Your task to perform on an android device: Go to wifi settings Image 0: 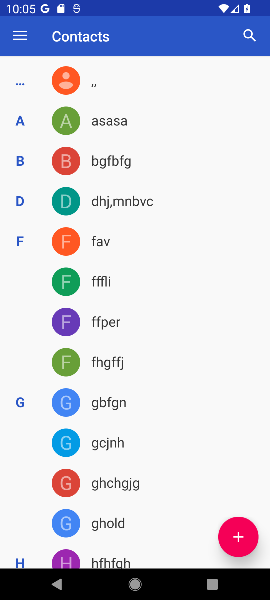
Step 0: press back button
Your task to perform on an android device: Go to wifi settings Image 1: 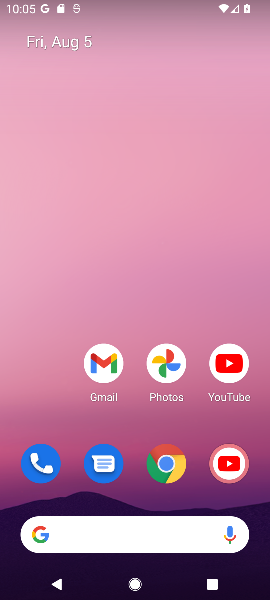
Step 1: drag from (150, 553) to (105, 199)
Your task to perform on an android device: Go to wifi settings Image 2: 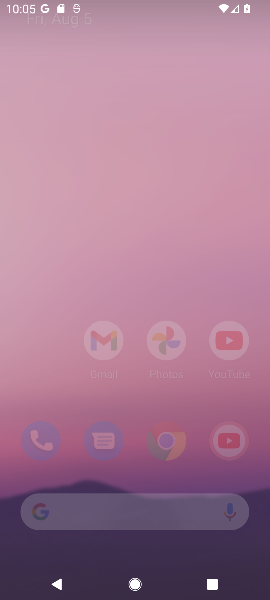
Step 2: drag from (159, 434) to (75, 123)
Your task to perform on an android device: Go to wifi settings Image 3: 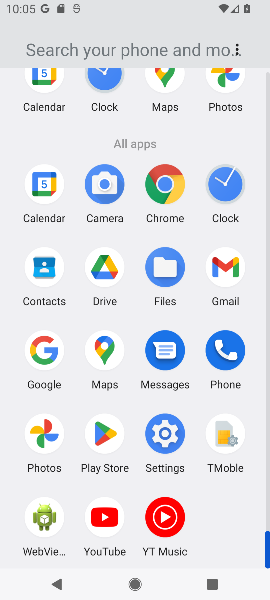
Step 3: drag from (119, 420) to (94, 240)
Your task to perform on an android device: Go to wifi settings Image 4: 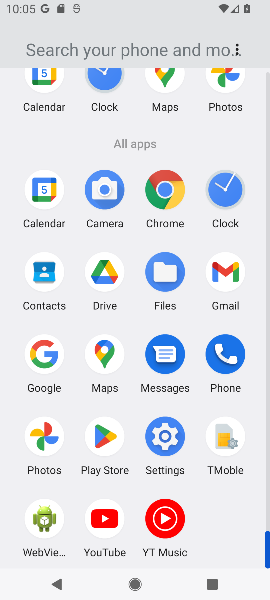
Step 4: click (165, 433)
Your task to perform on an android device: Go to wifi settings Image 5: 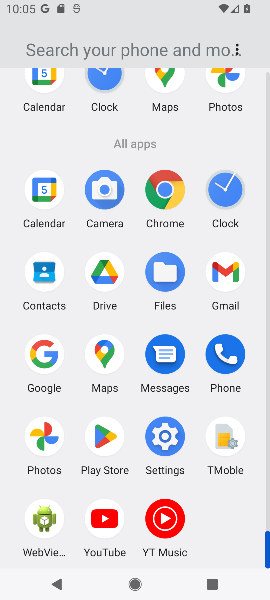
Step 5: click (165, 433)
Your task to perform on an android device: Go to wifi settings Image 6: 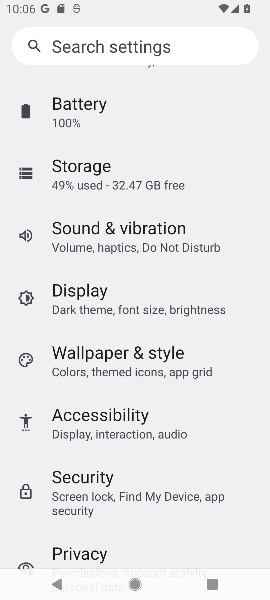
Step 6: press back button
Your task to perform on an android device: Go to wifi settings Image 7: 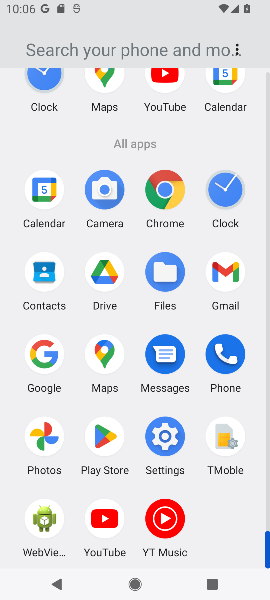
Step 7: click (165, 436)
Your task to perform on an android device: Go to wifi settings Image 8: 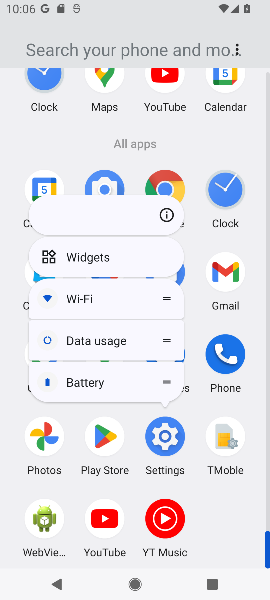
Step 8: click (165, 436)
Your task to perform on an android device: Go to wifi settings Image 9: 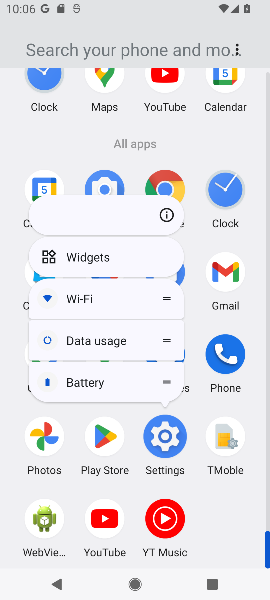
Step 9: click (165, 436)
Your task to perform on an android device: Go to wifi settings Image 10: 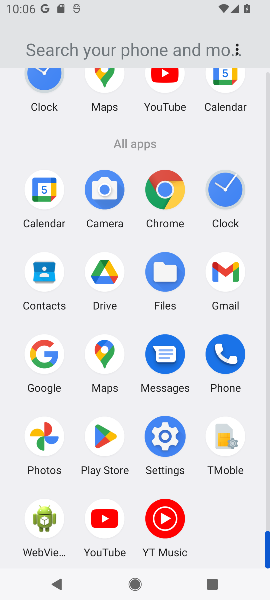
Step 10: click (166, 437)
Your task to perform on an android device: Go to wifi settings Image 11: 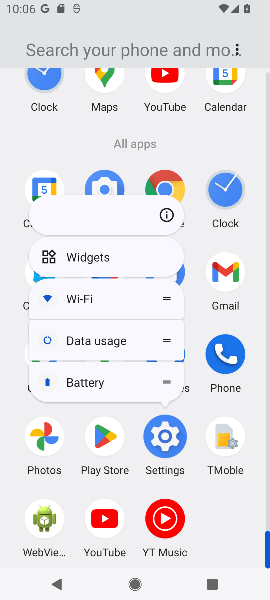
Step 11: click (166, 437)
Your task to perform on an android device: Go to wifi settings Image 12: 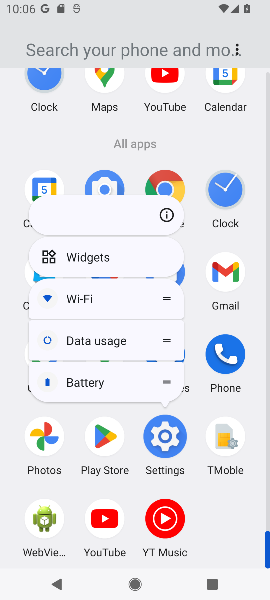
Step 12: click (166, 437)
Your task to perform on an android device: Go to wifi settings Image 13: 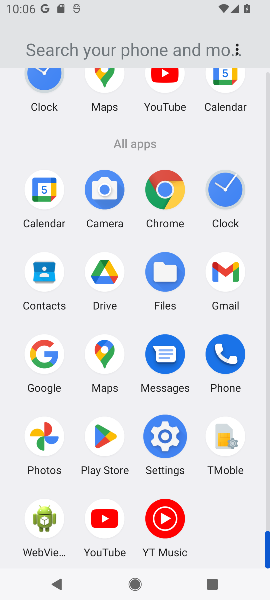
Step 13: click (166, 437)
Your task to perform on an android device: Go to wifi settings Image 14: 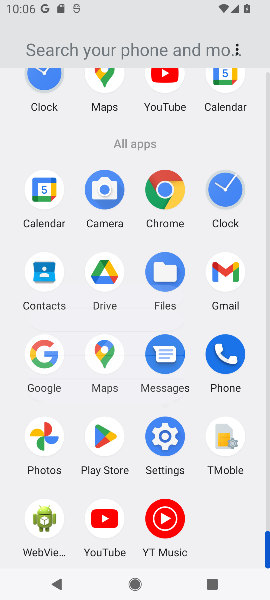
Step 14: click (166, 437)
Your task to perform on an android device: Go to wifi settings Image 15: 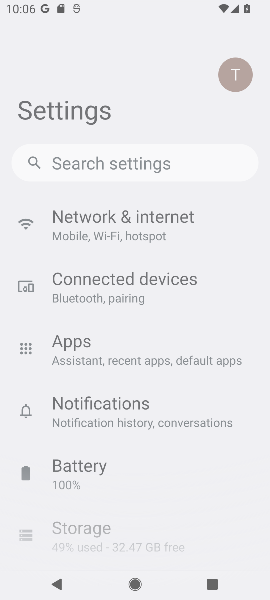
Step 15: click (166, 437)
Your task to perform on an android device: Go to wifi settings Image 16: 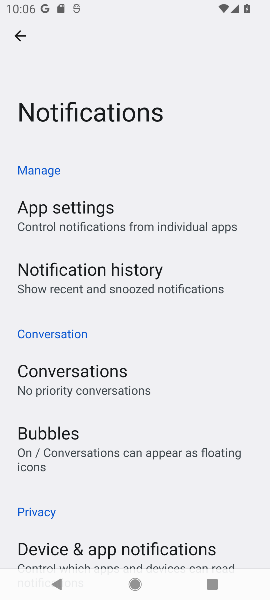
Step 16: click (18, 39)
Your task to perform on an android device: Go to wifi settings Image 17: 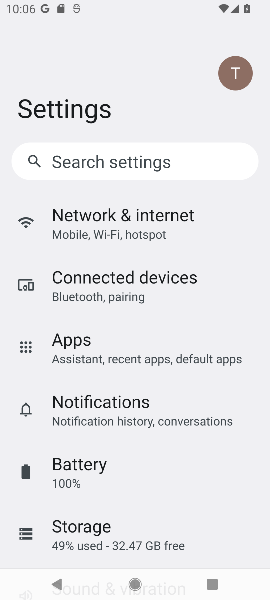
Step 17: click (133, 215)
Your task to perform on an android device: Go to wifi settings Image 18: 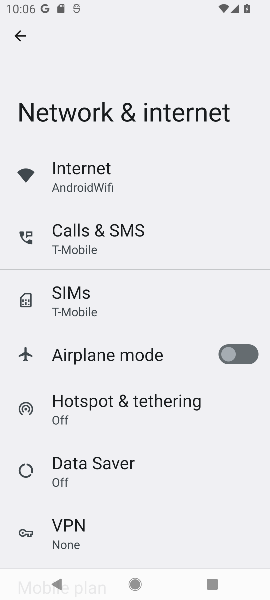
Step 18: click (83, 182)
Your task to perform on an android device: Go to wifi settings Image 19: 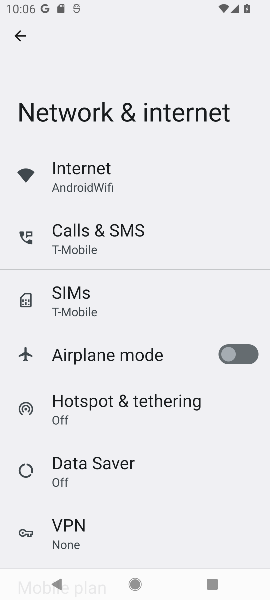
Step 19: click (83, 182)
Your task to perform on an android device: Go to wifi settings Image 20: 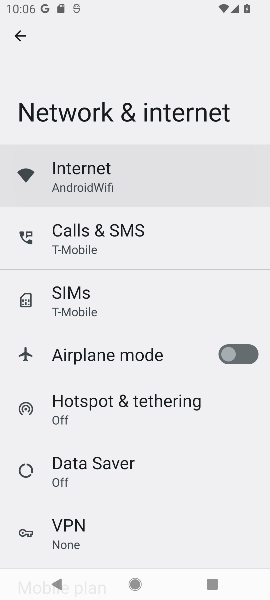
Step 20: click (83, 182)
Your task to perform on an android device: Go to wifi settings Image 21: 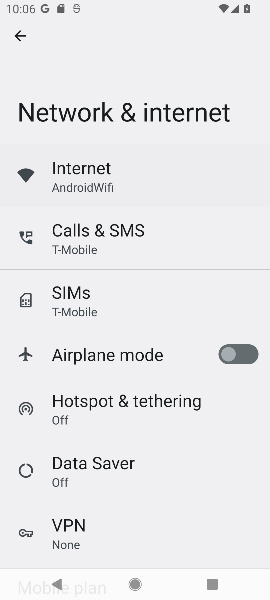
Step 21: click (83, 182)
Your task to perform on an android device: Go to wifi settings Image 22: 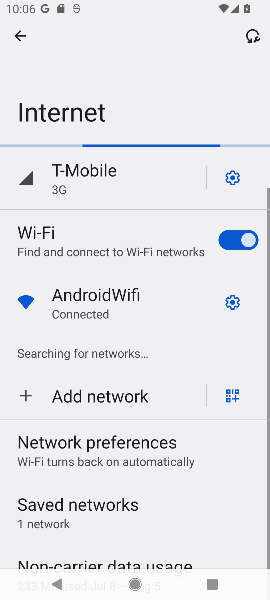
Step 22: task complete